Your task to perform on an android device: turn on location history Image 0: 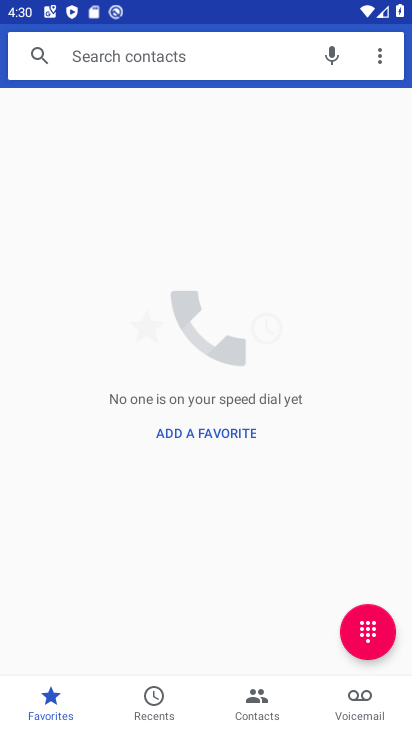
Step 0: press home button
Your task to perform on an android device: turn on location history Image 1: 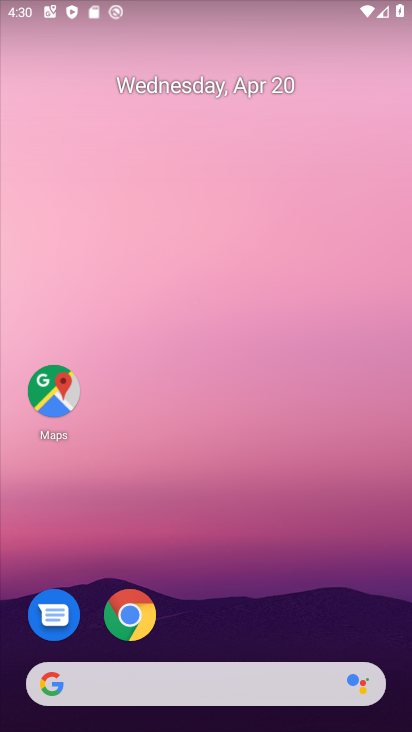
Step 1: drag from (225, 579) to (378, 20)
Your task to perform on an android device: turn on location history Image 2: 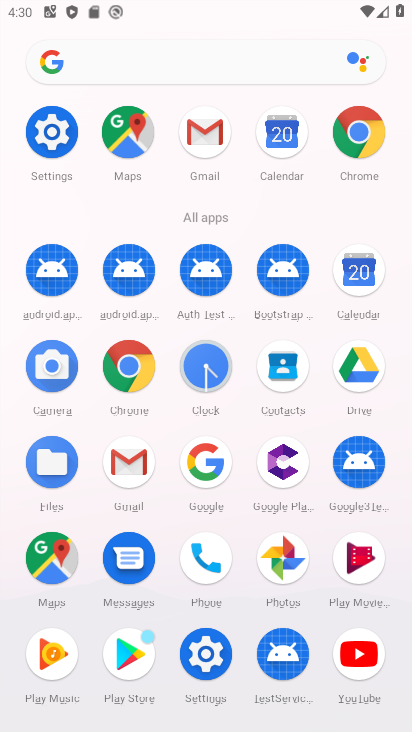
Step 2: click (45, 141)
Your task to perform on an android device: turn on location history Image 3: 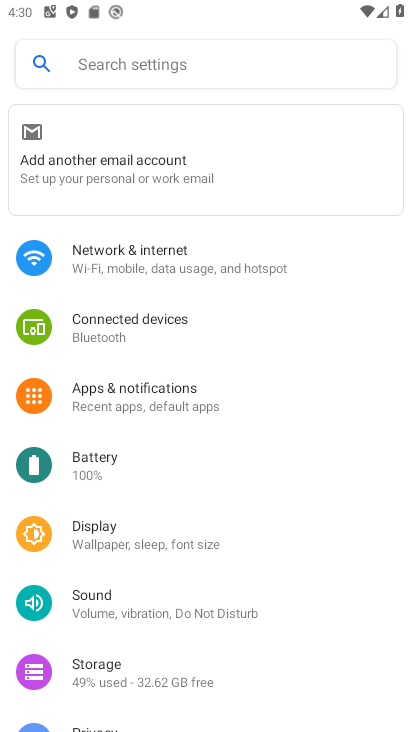
Step 3: drag from (134, 632) to (214, 277)
Your task to perform on an android device: turn on location history Image 4: 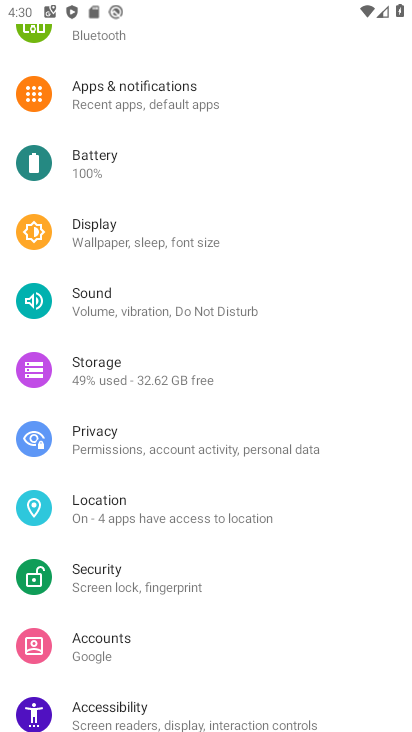
Step 4: click (128, 514)
Your task to perform on an android device: turn on location history Image 5: 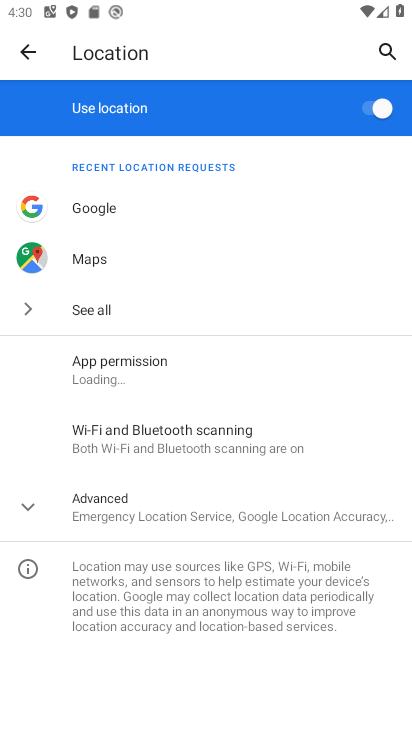
Step 5: click (154, 507)
Your task to perform on an android device: turn on location history Image 6: 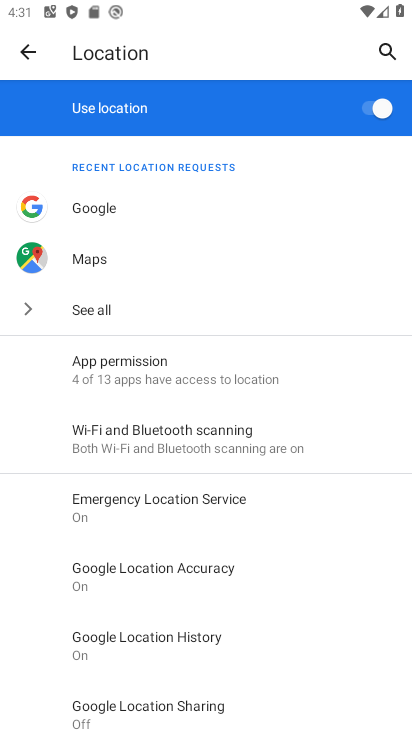
Step 6: click (136, 635)
Your task to perform on an android device: turn on location history Image 7: 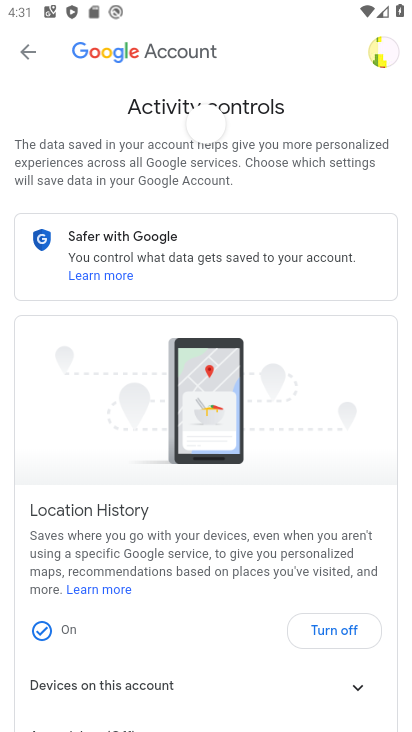
Step 7: task complete